Your task to perform on an android device: Open the calendar and show me this week's events Image 0: 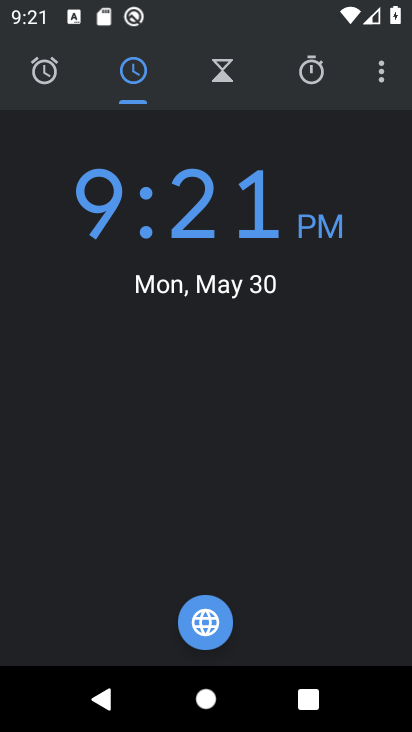
Step 0: press home button
Your task to perform on an android device: Open the calendar and show me this week's events Image 1: 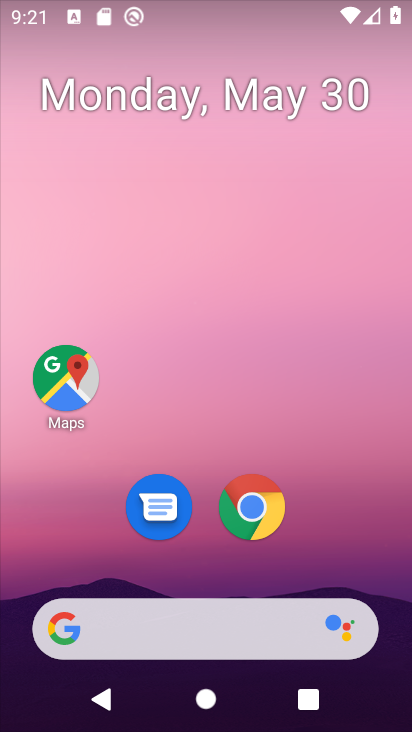
Step 1: drag from (217, 565) to (257, 4)
Your task to perform on an android device: Open the calendar and show me this week's events Image 2: 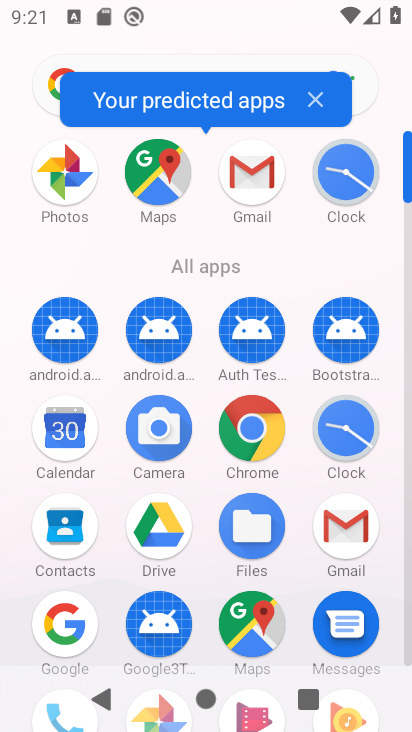
Step 2: click (54, 426)
Your task to perform on an android device: Open the calendar and show me this week's events Image 3: 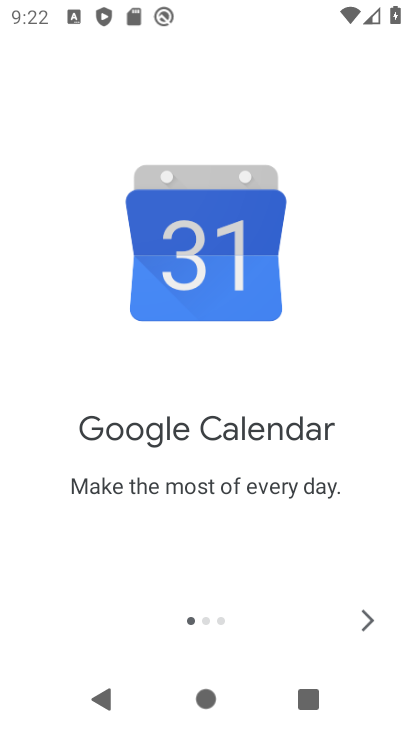
Step 3: click (356, 630)
Your task to perform on an android device: Open the calendar and show me this week's events Image 4: 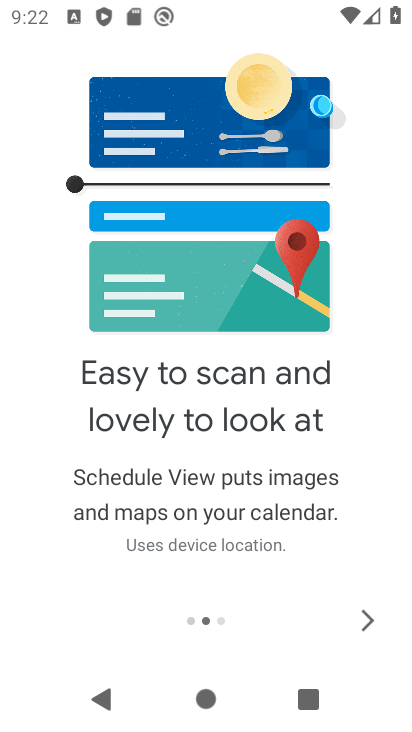
Step 4: click (374, 628)
Your task to perform on an android device: Open the calendar and show me this week's events Image 5: 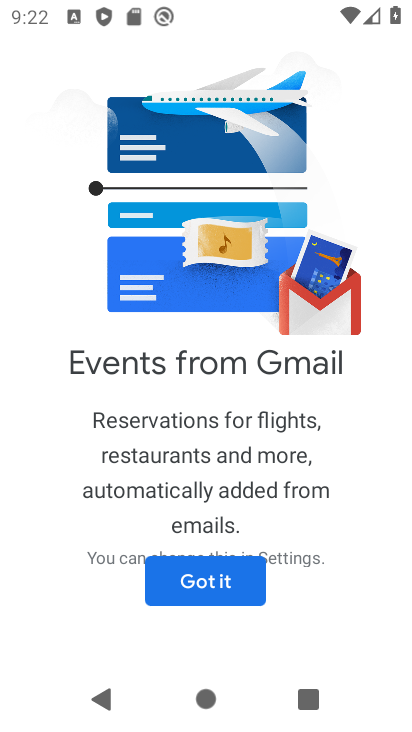
Step 5: click (374, 626)
Your task to perform on an android device: Open the calendar and show me this week's events Image 6: 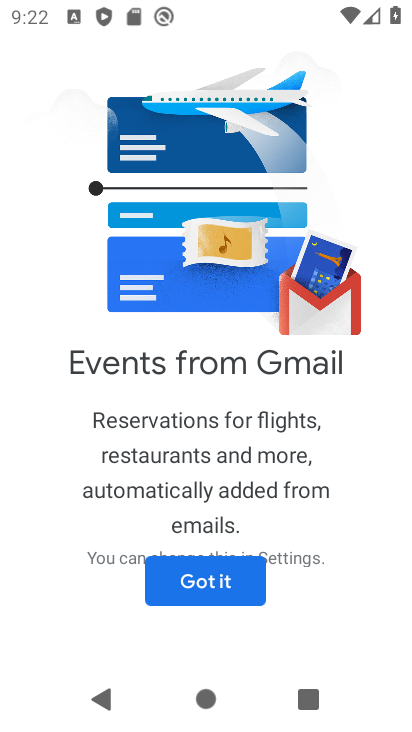
Step 6: click (187, 580)
Your task to perform on an android device: Open the calendar and show me this week's events Image 7: 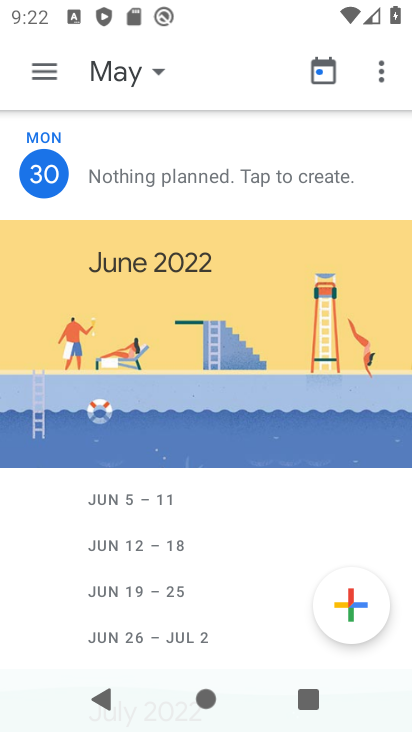
Step 7: click (38, 63)
Your task to perform on an android device: Open the calendar and show me this week's events Image 8: 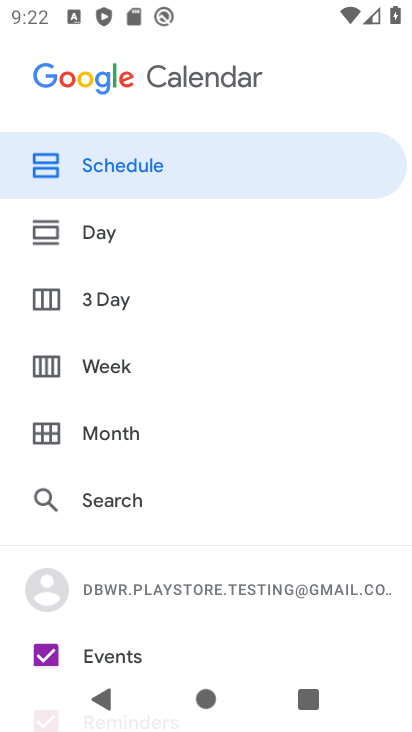
Step 8: click (112, 371)
Your task to perform on an android device: Open the calendar and show me this week's events Image 9: 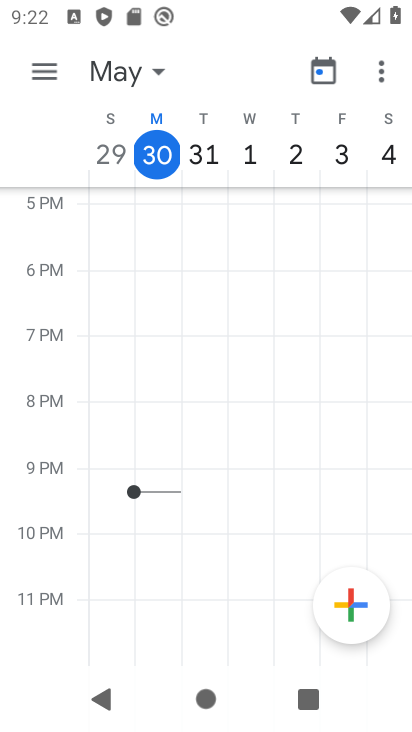
Step 9: click (117, 74)
Your task to perform on an android device: Open the calendar and show me this week's events Image 10: 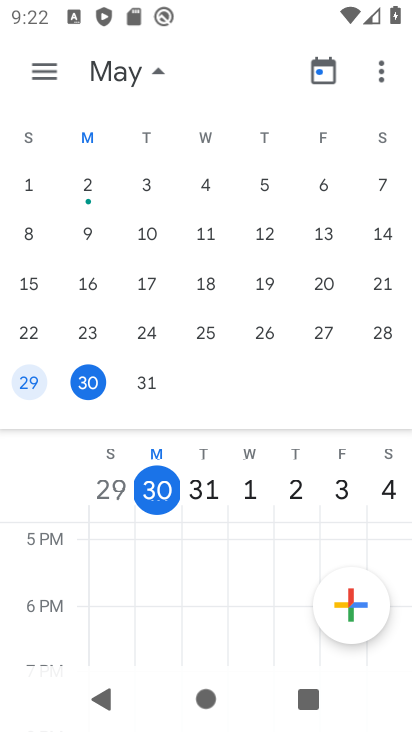
Step 10: drag from (187, 580) to (248, 188)
Your task to perform on an android device: Open the calendar and show me this week's events Image 11: 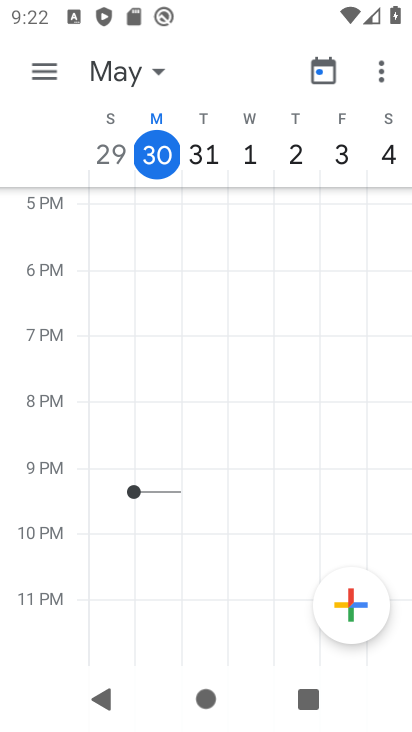
Step 11: click (45, 70)
Your task to perform on an android device: Open the calendar and show me this week's events Image 12: 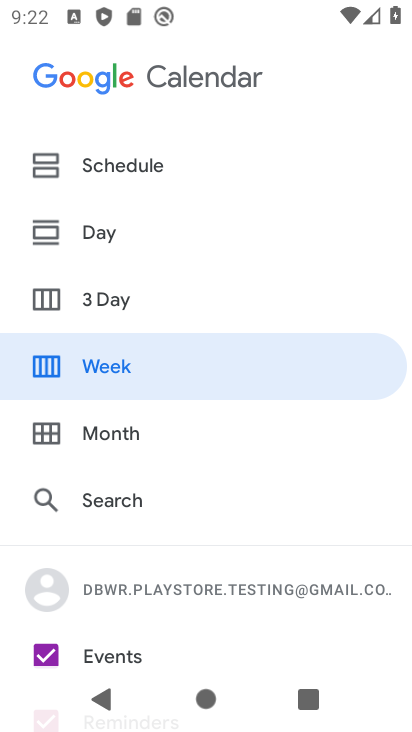
Step 12: click (91, 367)
Your task to perform on an android device: Open the calendar and show me this week's events Image 13: 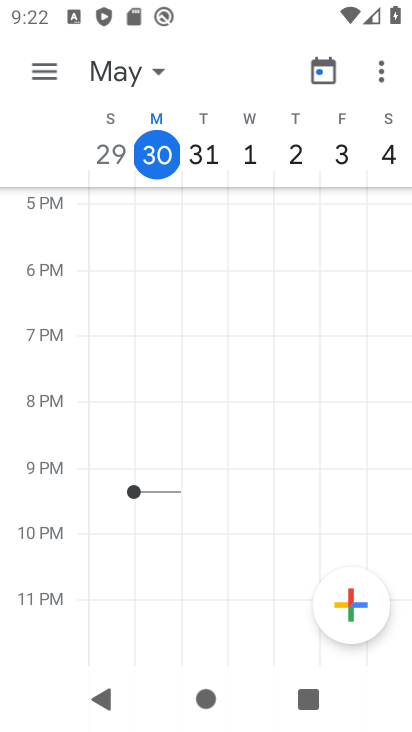
Step 13: task complete